Your task to perform on an android device: Search for Mexican restaurants on Maps Image 0: 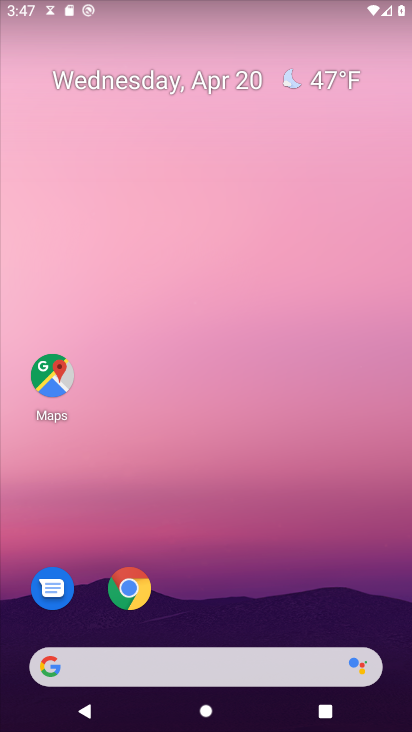
Step 0: drag from (224, 483) to (346, 68)
Your task to perform on an android device: Search for Mexican restaurants on Maps Image 1: 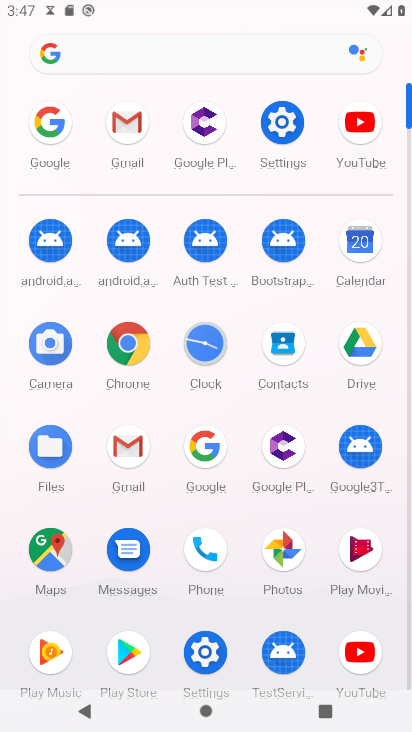
Step 1: click (29, 546)
Your task to perform on an android device: Search for Mexican restaurants on Maps Image 2: 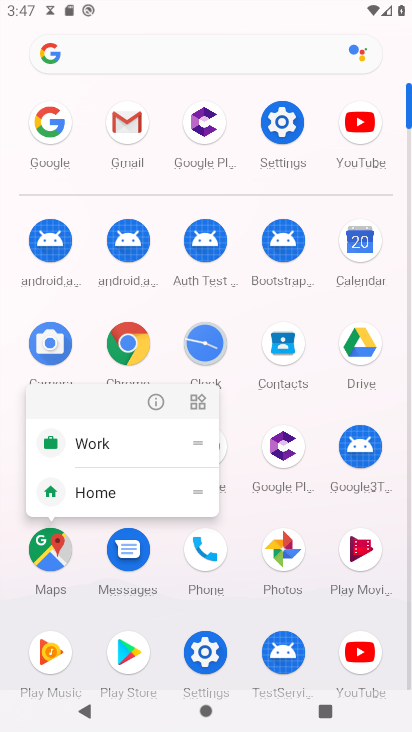
Step 2: click (31, 547)
Your task to perform on an android device: Search for Mexican restaurants on Maps Image 3: 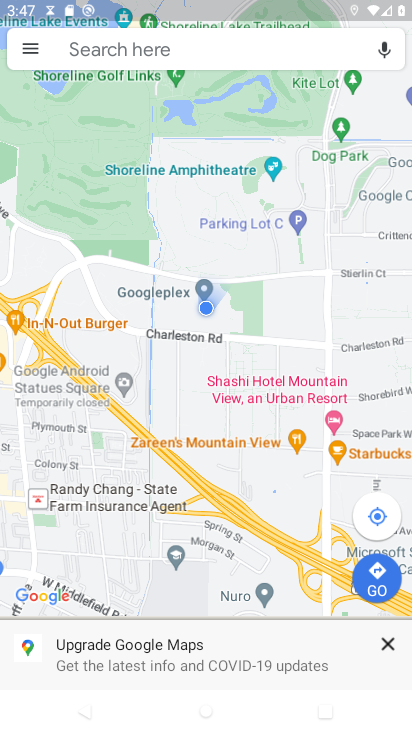
Step 3: click (199, 58)
Your task to perform on an android device: Search for Mexican restaurants on Maps Image 4: 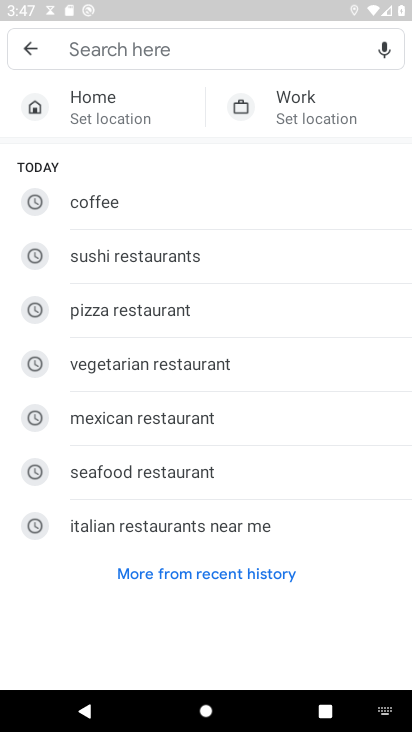
Step 4: type "mexican restaurants"
Your task to perform on an android device: Search for Mexican restaurants on Maps Image 5: 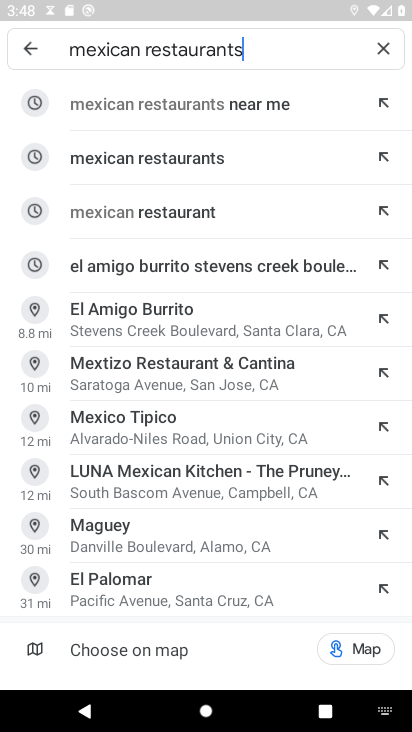
Step 5: click (196, 162)
Your task to perform on an android device: Search for Mexican restaurants on Maps Image 6: 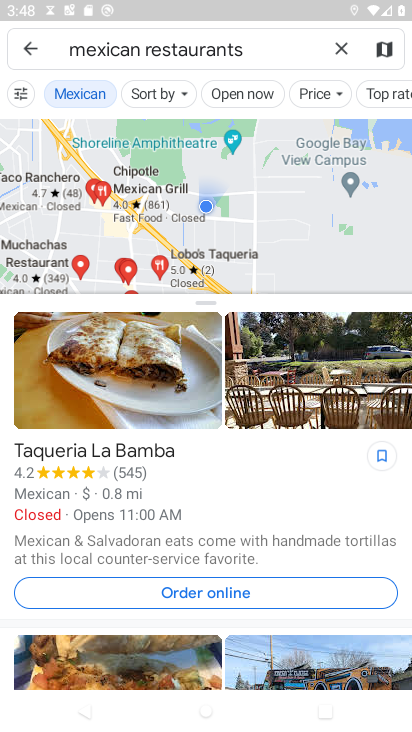
Step 6: task complete